Your task to perform on an android device: Open CNN.com Image 0: 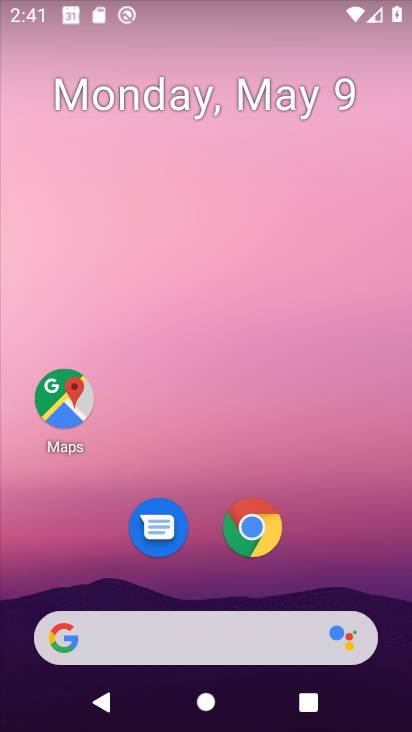
Step 0: drag from (220, 629) to (242, 338)
Your task to perform on an android device: Open CNN.com Image 1: 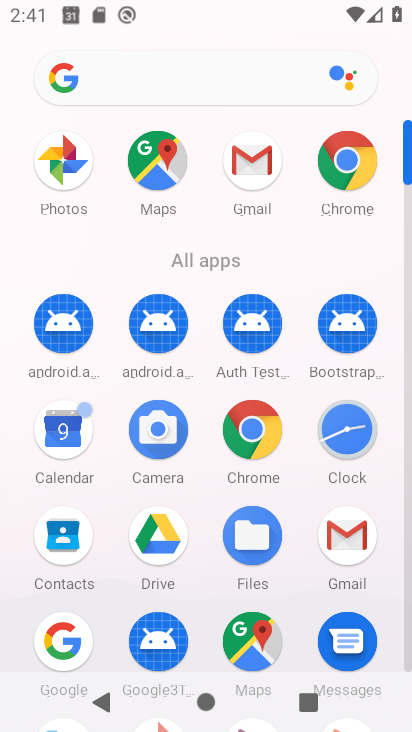
Step 1: click (360, 183)
Your task to perform on an android device: Open CNN.com Image 2: 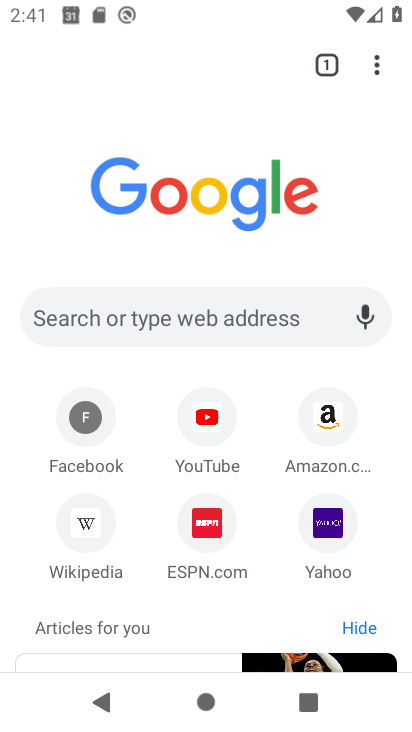
Step 2: click (277, 321)
Your task to perform on an android device: Open CNN.com Image 3: 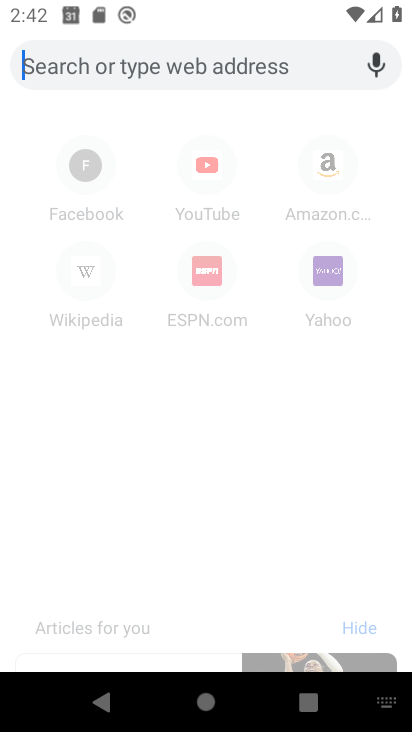
Step 3: type "cnn.com"
Your task to perform on an android device: Open CNN.com Image 4: 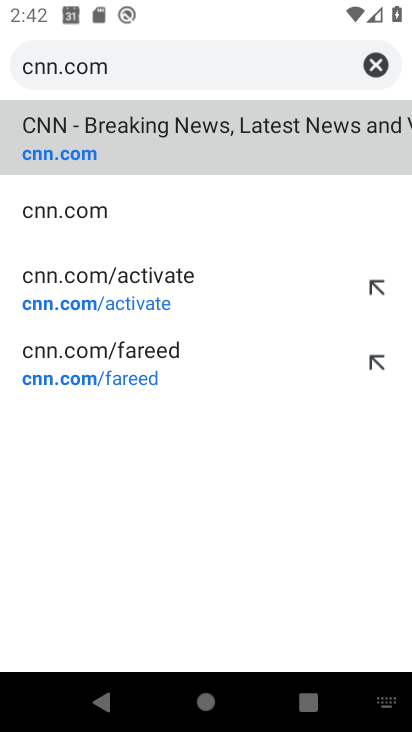
Step 4: click (237, 144)
Your task to perform on an android device: Open CNN.com Image 5: 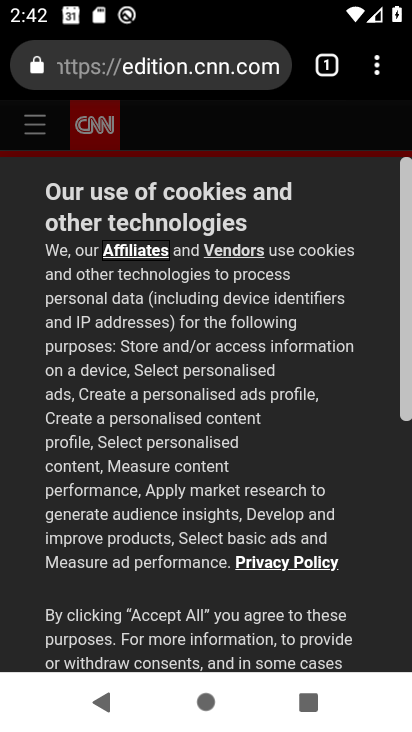
Step 5: task complete